Your task to perform on an android device: View the shopping cart on amazon. Search for macbook pro 15 inch on amazon, select the first entry, add it to the cart, then select checkout. Image 0: 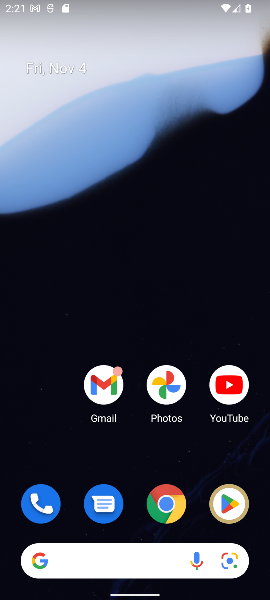
Step 0: click (160, 510)
Your task to perform on an android device: View the shopping cart on amazon. Search for macbook pro 15 inch on amazon, select the first entry, add it to the cart, then select checkout. Image 1: 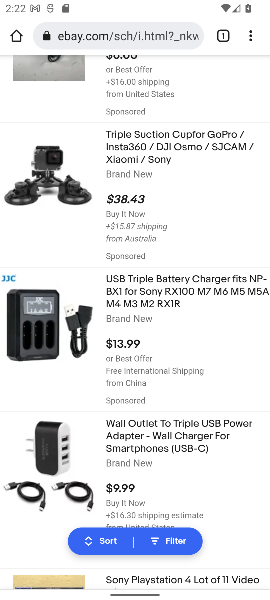
Step 1: click (118, 42)
Your task to perform on an android device: View the shopping cart on amazon. Search for macbook pro 15 inch on amazon, select the first entry, add it to the cart, then select checkout. Image 2: 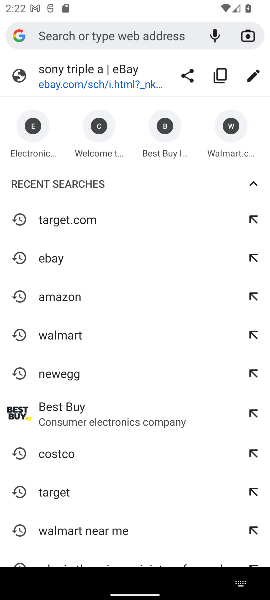
Step 2: type "amazon.com"
Your task to perform on an android device: View the shopping cart on amazon. Search for macbook pro 15 inch on amazon, select the first entry, add it to the cart, then select checkout. Image 3: 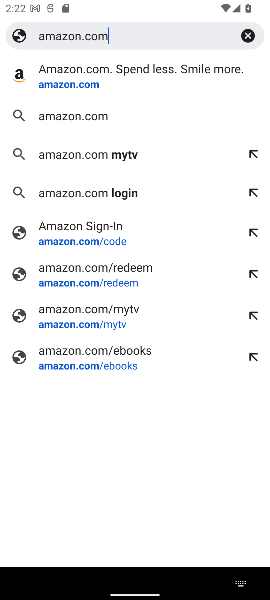
Step 3: click (87, 89)
Your task to perform on an android device: View the shopping cart on amazon. Search for macbook pro 15 inch on amazon, select the first entry, add it to the cart, then select checkout. Image 4: 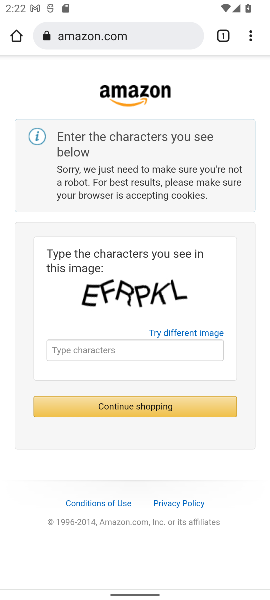
Step 4: press back button
Your task to perform on an android device: View the shopping cart on amazon. Search for macbook pro 15 inch on amazon, select the first entry, add it to the cart, then select checkout. Image 5: 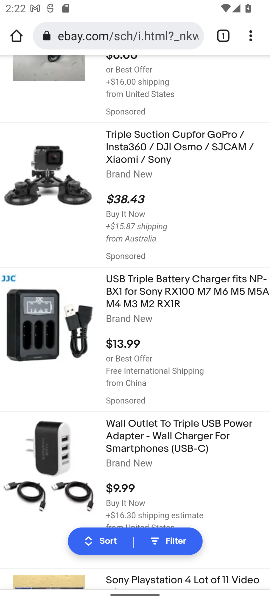
Step 5: click (118, 29)
Your task to perform on an android device: View the shopping cart on amazon. Search for macbook pro 15 inch on amazon, select the first entry, add it to the cart, then select checkout. Image 6: 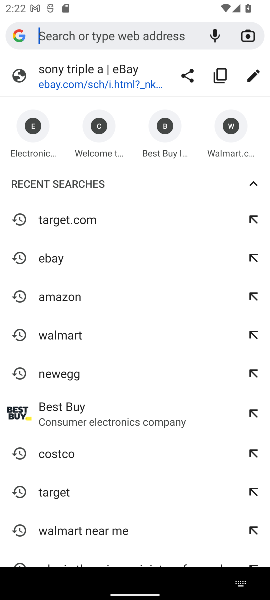
Step 6: click (64, 293)
Your task to perform on an android device: View the shopping cart on amazon. Search for macbook pro 15 inch on amazon, select the first entry, add it to the cart, then select checkout. Image 7: 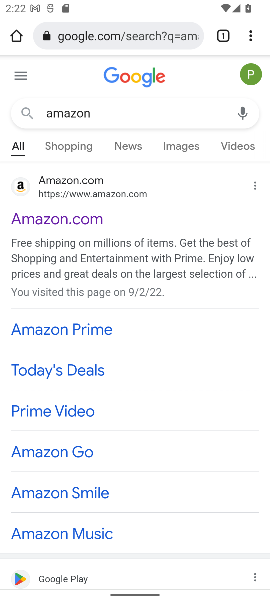
Step 7: click (52, 229)
Your task to perform on an android device: View the shopping cart on amazon. Search for macbook pro 15 inch on amazon, select the first entry, add it to the cart, then select checkout. Image 8: 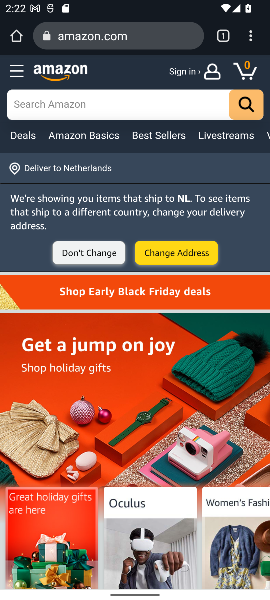
Step 8: click (241, 72)
Your task to perform on an android device: View the shopping cart on amazon. Search for macbook pro 15 inch on amazon, select the first entry, add it to the cart, then select checkout. Image 9: 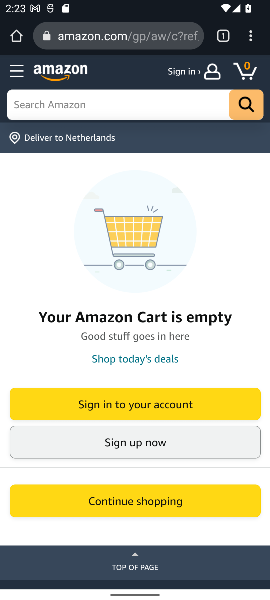
Step 9: click (74, 107)
Your task to perform on an android device: View the shopping cart on amazon. Search for macbook pro 15 inch on amazon, select the first entry, add it to the cart, then select checkout. Image 10: 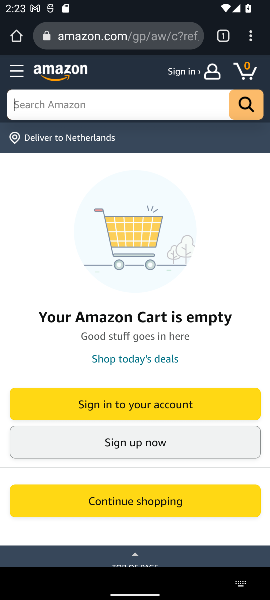
Step 10: type "macbook pro 15 inch "
Your task to perform on an android device: View the shopping cart on amazon. Search for macbook pro 15 inch on amazon, select the first entry, add it to the cart, then select checkout. Image 11: 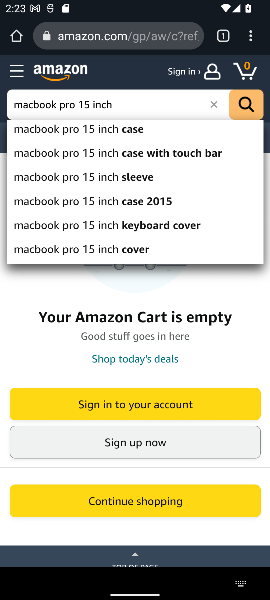
Step 11: click (243, 99)
Your task to perform on an android device: View the shopping cart on amazon. Search for macbook pro 15 inch on amazon, select the first entry, add it to the cart, then select checkout. Image 12: 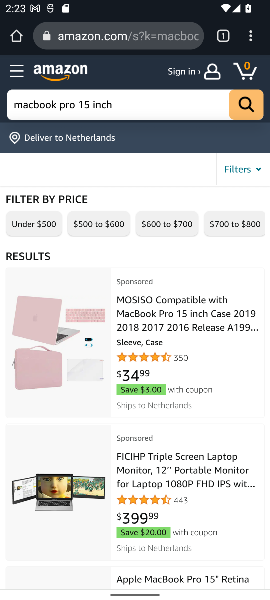
Step 12: click (90, 352)
Your task to perform on an android device: View the shopping cart on amazon. Search for macbook pro 15 inch on amazon, select the first entry, add it to the cart, then select checkout. Image 13: 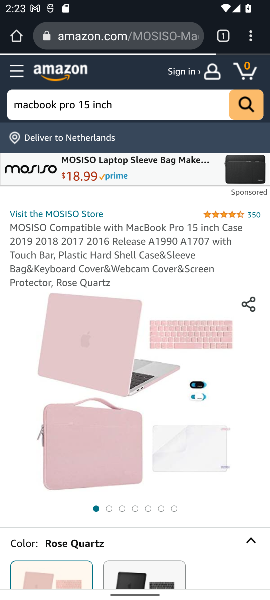
Step 13: drag from (127, 388) to (119, 165)
Your task to perform on an android device: View the shopping cart on amazon. Search for macbook pro 15 inch on amazon, select the first entry, add it to the cart, then select checkout. Image 14: 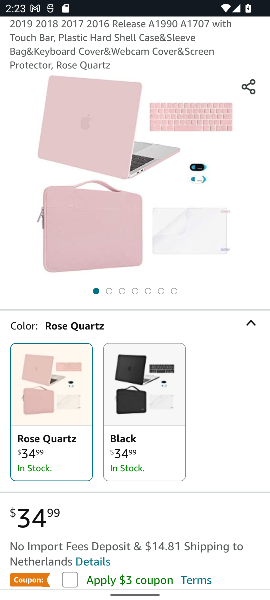
Step 14: drag from (120, 423) to (111, 181)
Your task to perform on an android device: View the shopping cart on amazon. Search for macbook pro 15 inch on amazon, select the first entry, add it to the cart, then select checkout. Image 15: 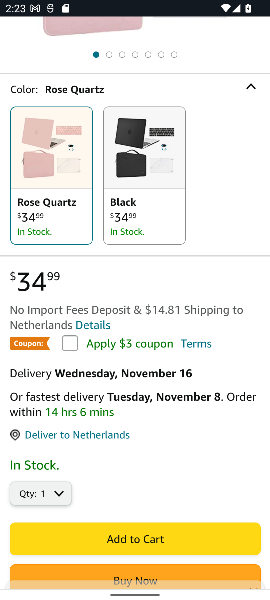
Step 15: drag from (101, 423) to (99, 285)
Your task to perform on an android device: View the shopping cart on amazon. Search for macbook pro 15 inch on amazon, select the first entry, add it to the cart, then select checkout. Image 16: 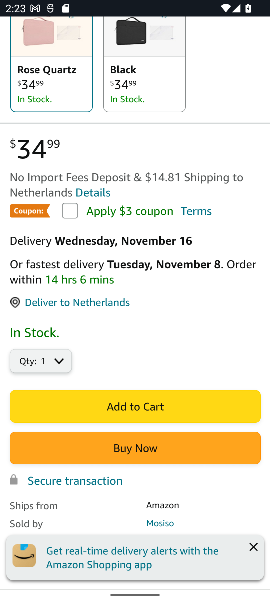
Step 16: click (126, 399)
Your task to perform on an android device: View the shopping cart on amazon. Search for macbook pro 15 inch on amazon, select the first entry, add it to the cart, then select checkout. Image 17: 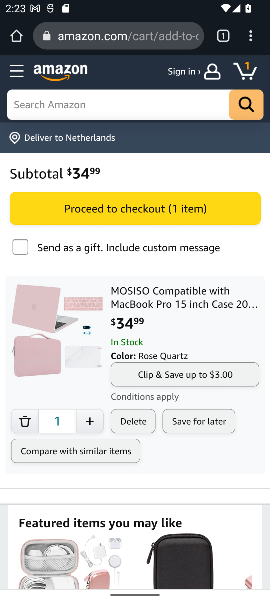
Step 17: click (97, 216)
Your task to perform on an android device: View the shopping cart on amazon. Search for macbook pro 15 inch on amazon, select the first entry, add it to the cart, then select checkout. Image 18: 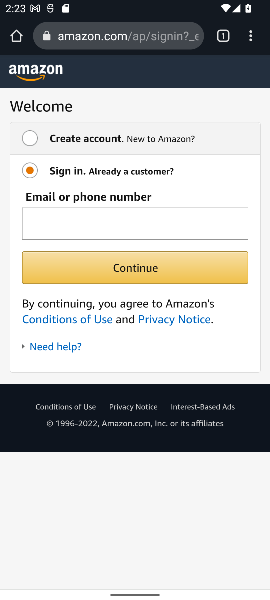
Step 18: task complete